Your task to perform on an android device: refresh tabs in the chrome app Image 0: 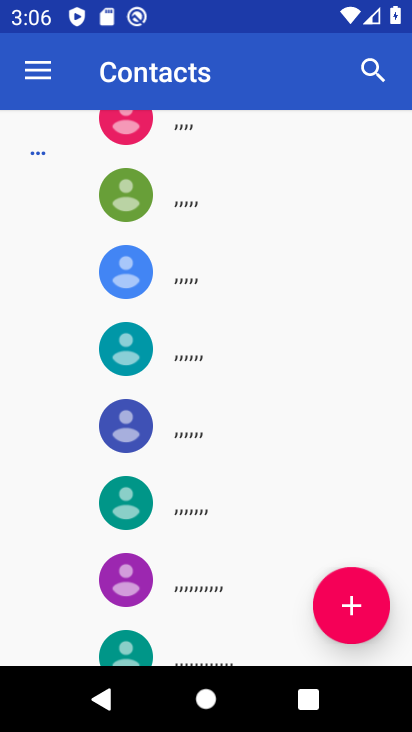
Step 0: press home button
Your task to perform on an android device: refresh tabs in the chrome app Image 1: 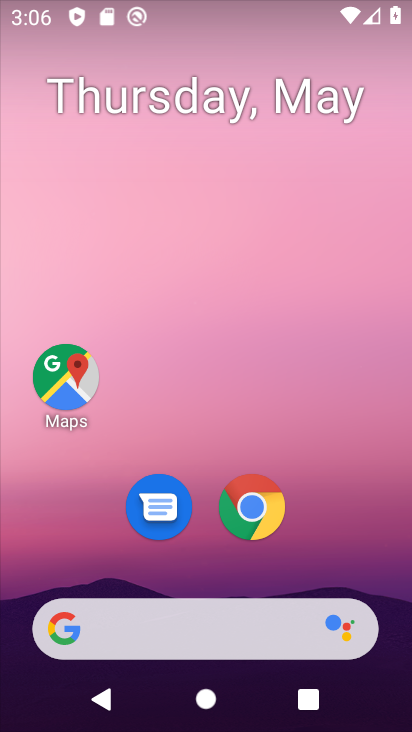
Step 1: click (248, 511)
Your task to perform on an android device: refresh tabs in the chrome app Image 2: 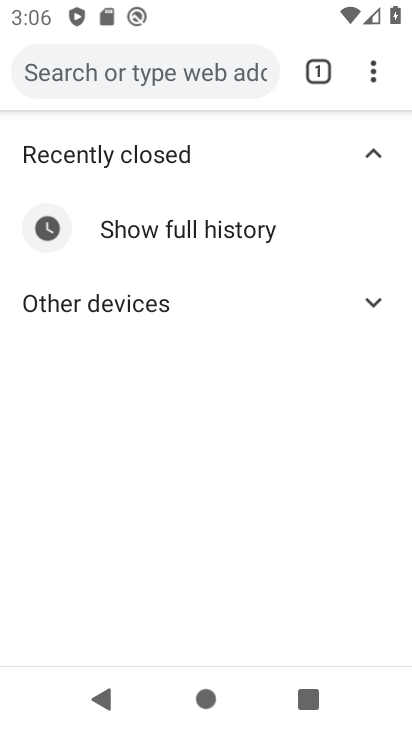
Step 2: click (374, 71)
Your task to perform on an android device: refresh tabs in the chrome app Image 3: 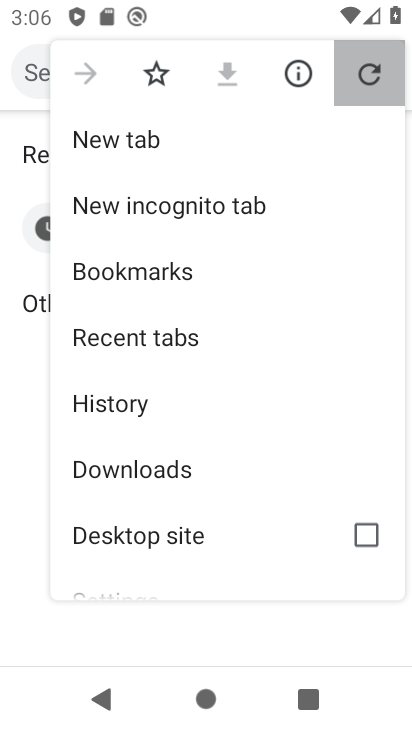
Step 3: click (363, 73)
Your task to perform on an android device: refresh tabs in the chrome app Image 4: 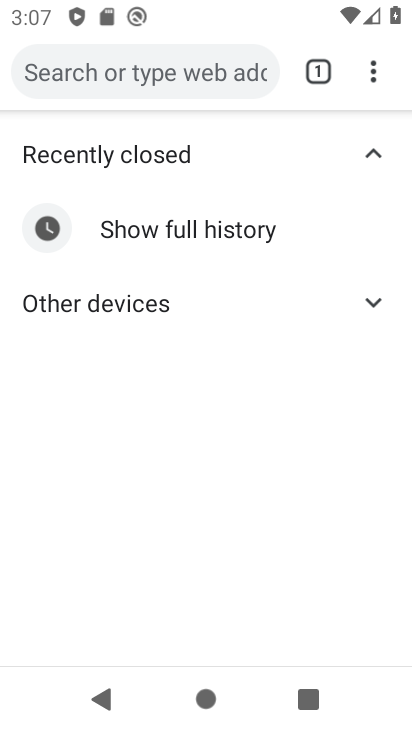
Step 4: click (371, 72)
Your task to perform on an android device: refresh tabs in the chrome app Image 5: 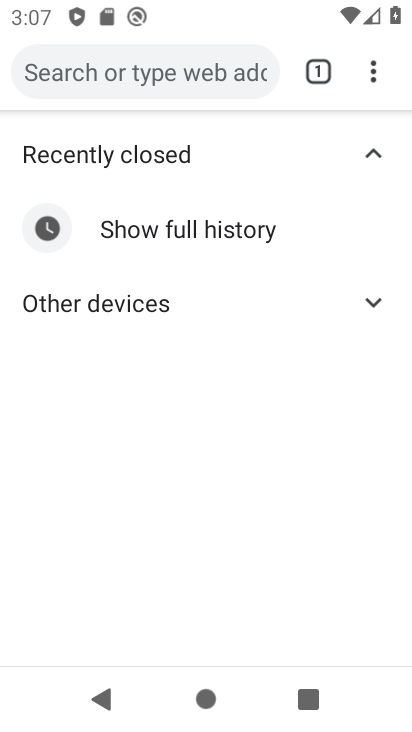
Step 5: task complete